Your task to perform on an android device: set default search engine in the chrome app Image 0: 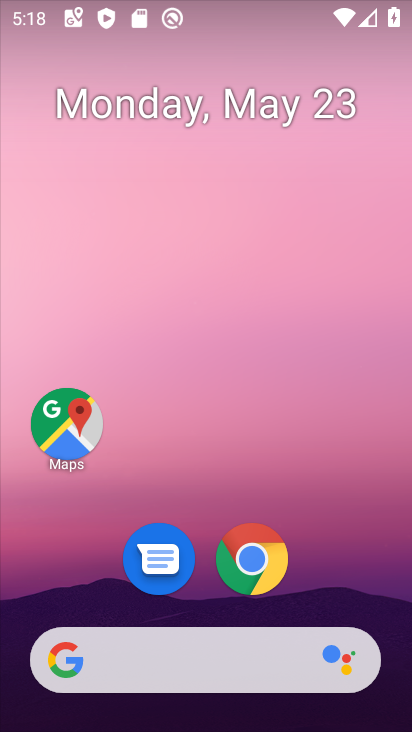
Step 0: drag from (299, 639) to (337, 29)
Your task to perform on an android device: set default search engine in the chrome app Image 1: 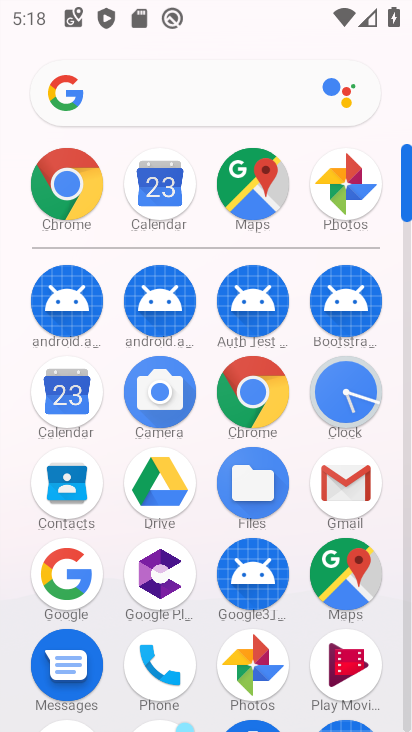
Step 1: click (248, 389)
Your task to perform on an android device: set default search engine in the chrome app Image 2: 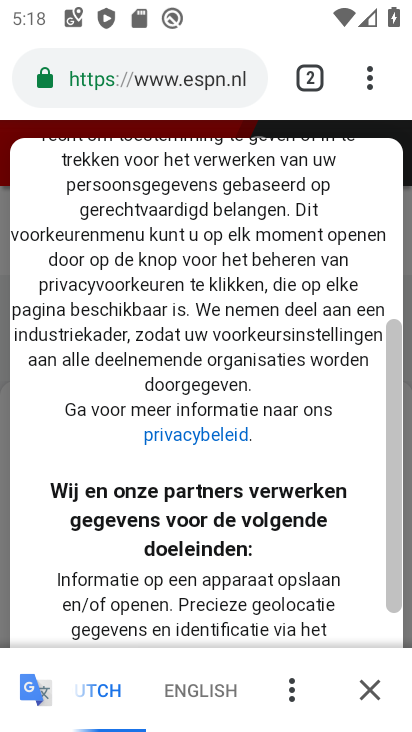
Step 2: drag from (377, 74) to (118, 628)
Your task to perform on an android device: set default search engine in the chrome app Image 3: 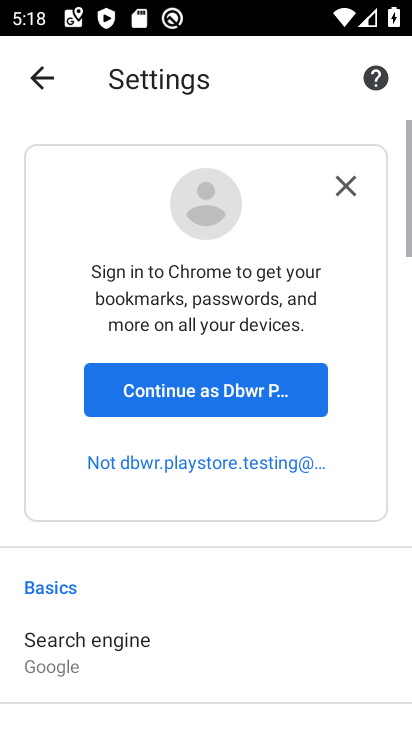
Step 3: drag from (149, 676) to (176, 416)
Your task to perform on an android device: set default search engine in the chrome app Image 4: 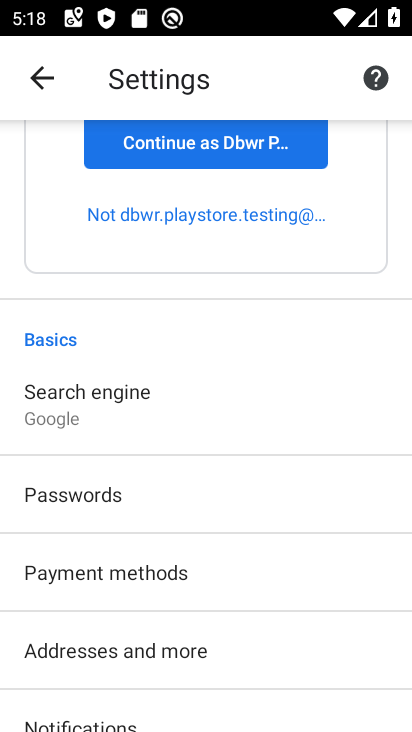
Step 4: click (148, 422)
Your task to perform on an android device: set default search engine in the chrome app Image 5: 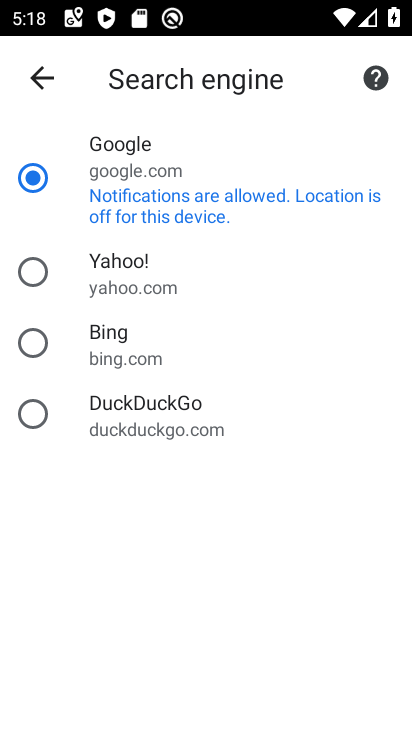
Step 5: task complete